Your task to perform on an android device: turn off data saver in the chrome app Image 0: 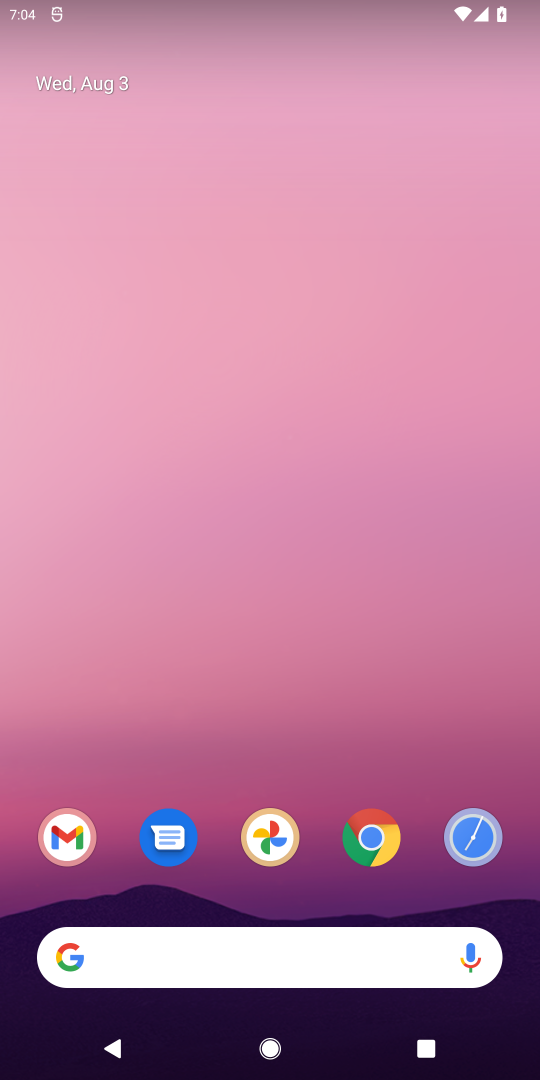
Step 0: press home button
Your task to perform on an android device: turn off data saver in the chrome app Image 1: 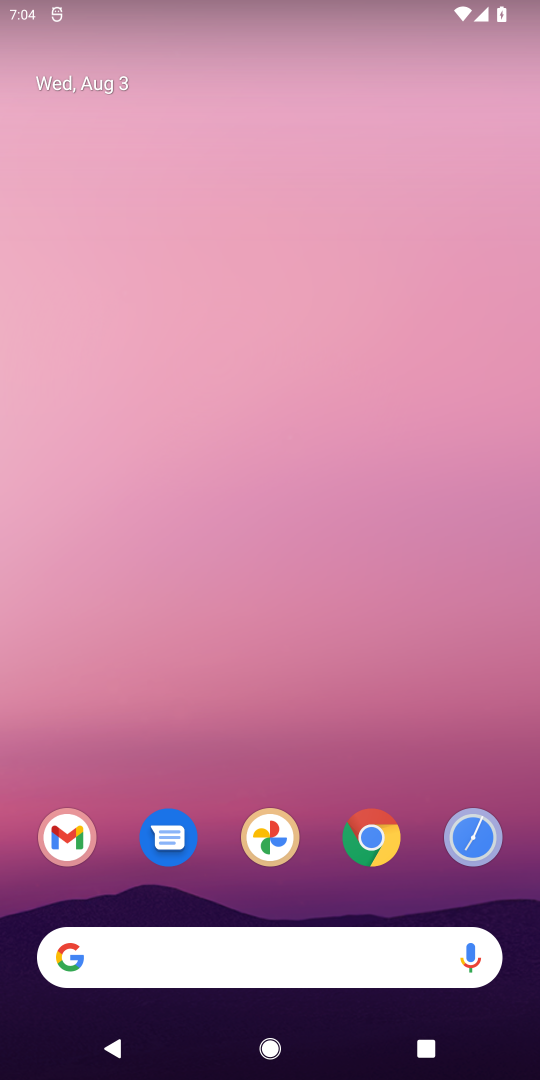
Step 1: click (360, 838)
Your task to perform on an android device: turn off data saver in the chrome app Image 2: 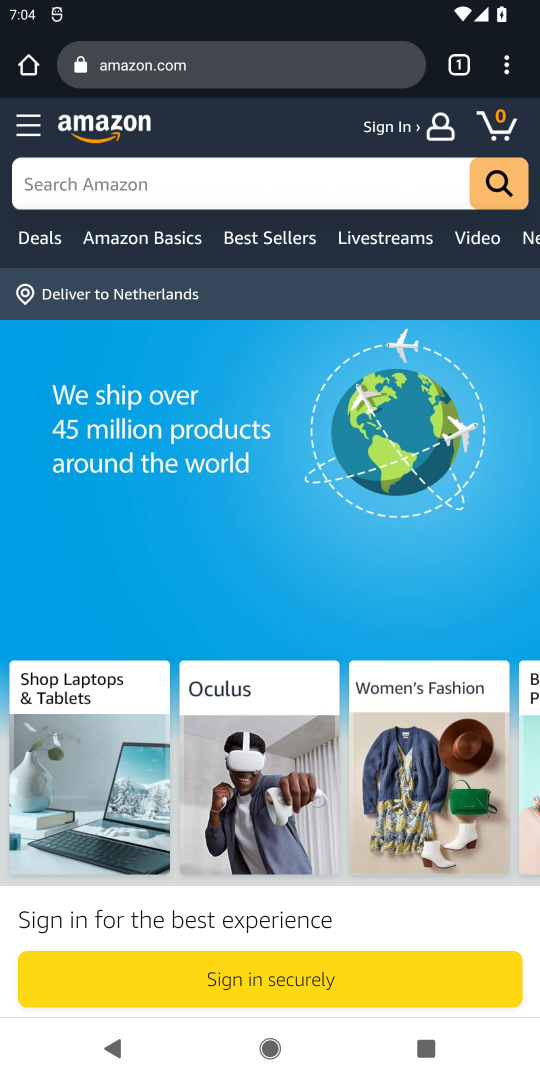
Step 2: drag from (509, 68) to (321, 868)
Your task to perform on an android device: turn off data saver in the chrome app Image 3: 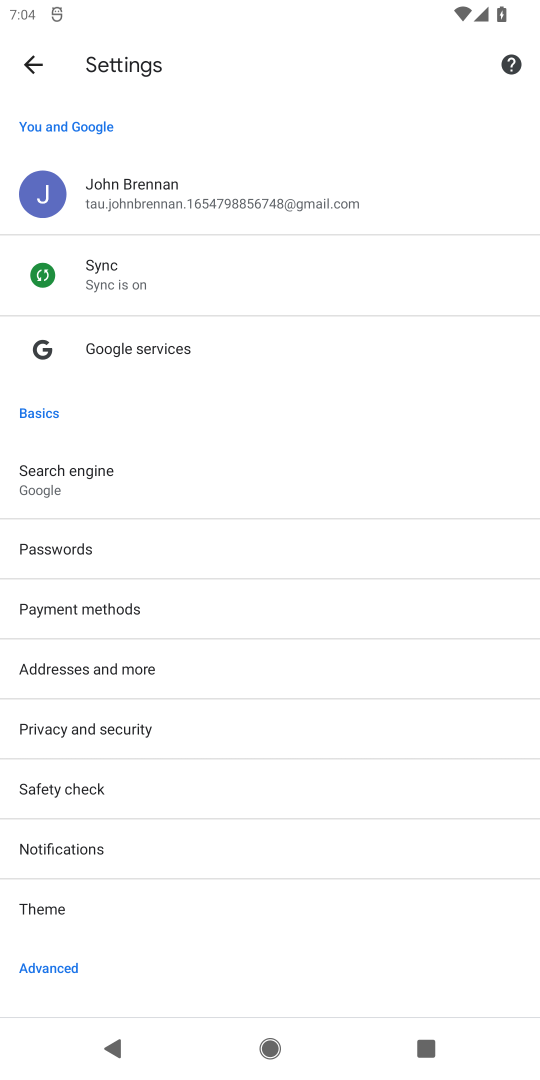
Step 3: drag from (140, 963) to (201, 415)
Your task to perform on an android device: turn off data saver in the chrome app Image 4: 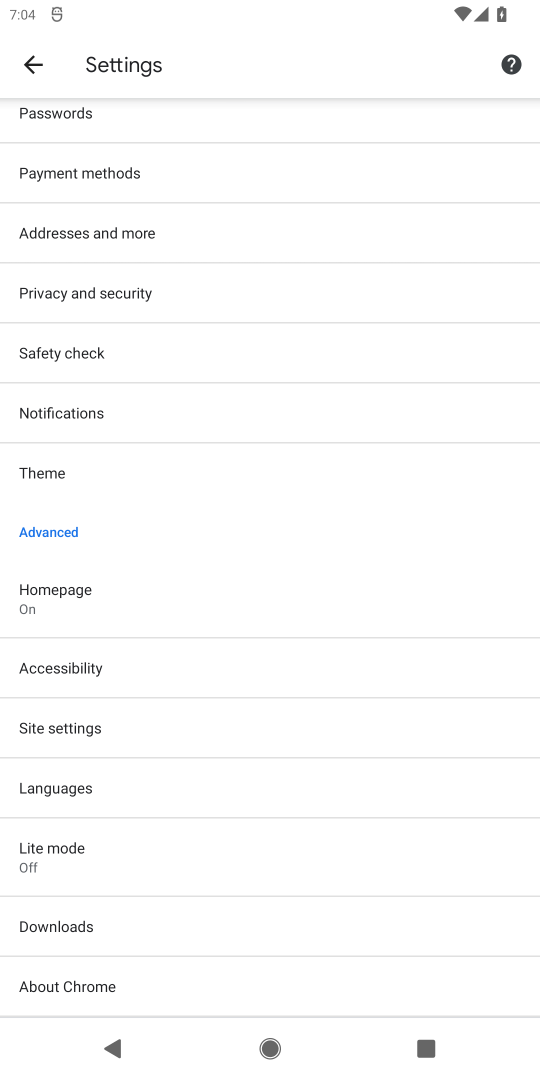
Step 4: click (100, 850)
Your task to perform on an android device: turn off data saver in the chrome app Image 5: 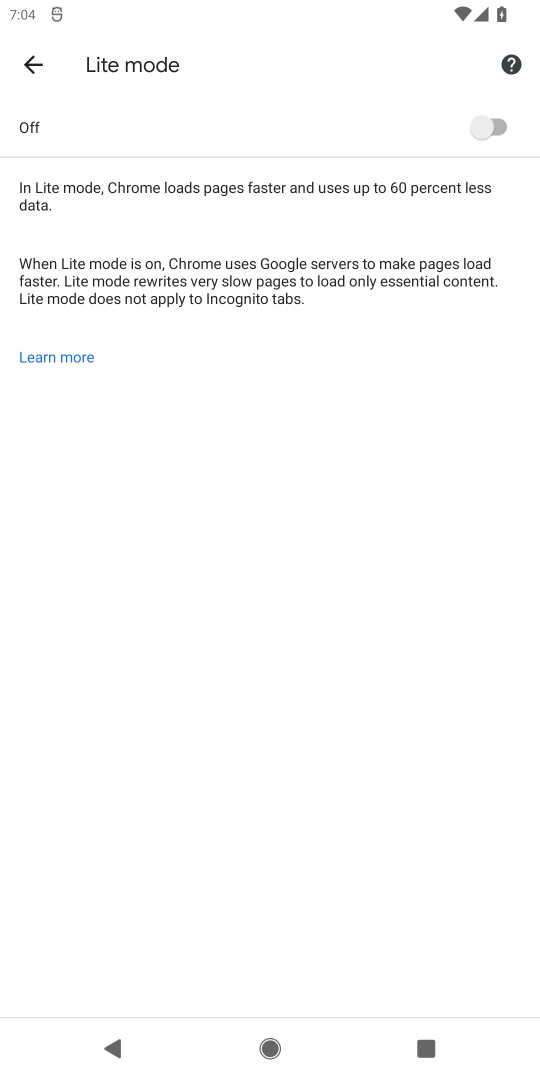
Step 5: task complete